Your task to perform on an android device: Open network settings Image 0: 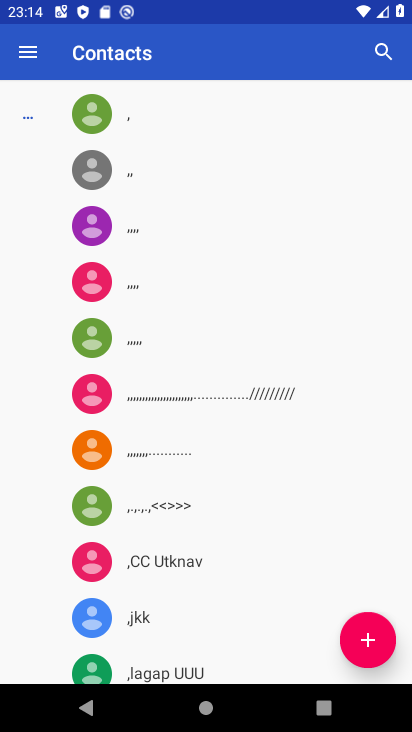
Step 0: press home button
Your task to perform on an android device: Open network settings Image 1: 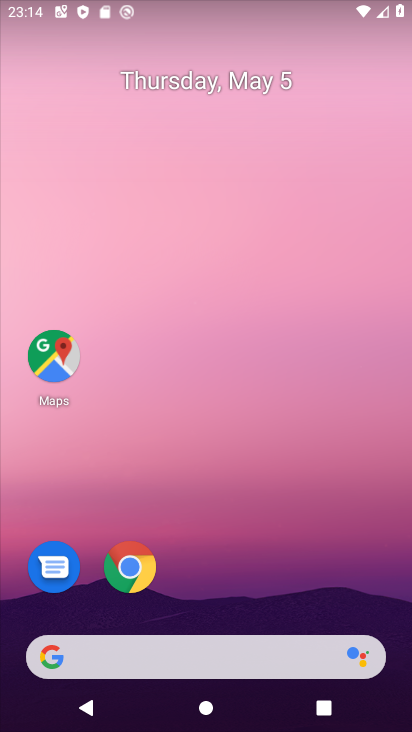
Step 1: drag from (237, 593) to (265, 277)
Your task to perform on an android device: Open network settings Image 2: 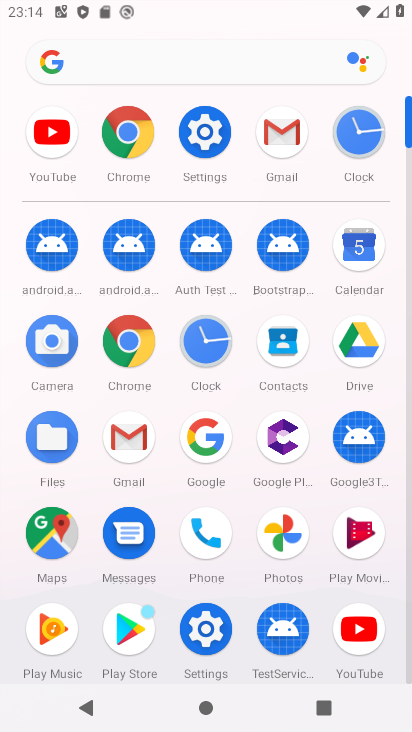
Step 2: click (210, 148)
Your task to perform on an android device: Open network settings Image 3: 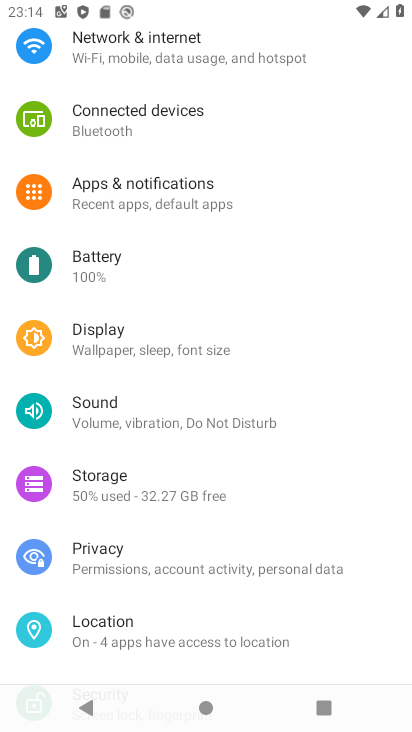
Step 3: click (173, 66)
Your task to perform on an android device: Open network settings Image 4: 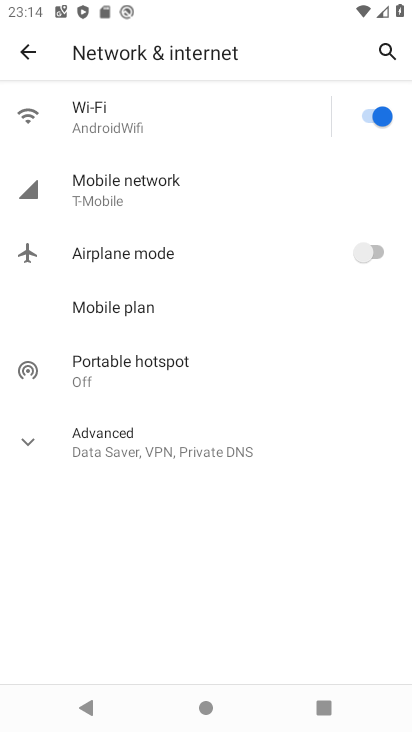
Step 4: click (198, 198)
Your task to perform on an android device: Open network settings Image 5: 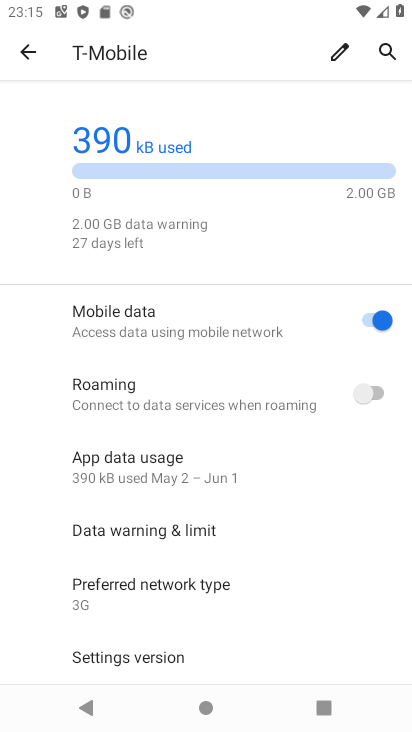
Step 5: task complete